Your task to perform on an android device: Go to Maps Image 0: 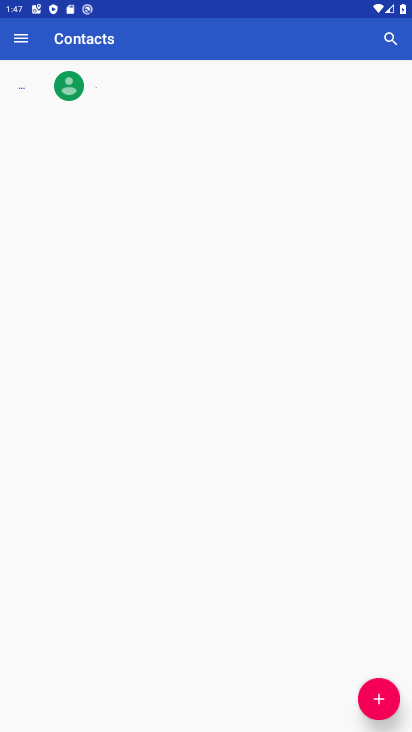
Step 0: press home button
Your task to perform on an android device: Go to Maps Image 1: 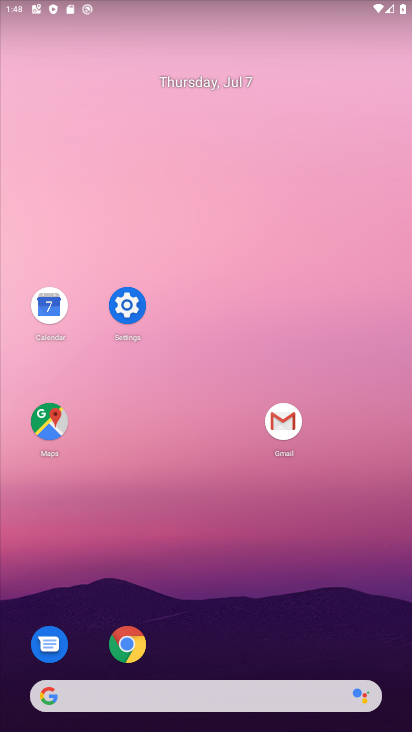
Step 1: click (51, 409)
Your task to perform on an android device: Go to Maps Image 2: 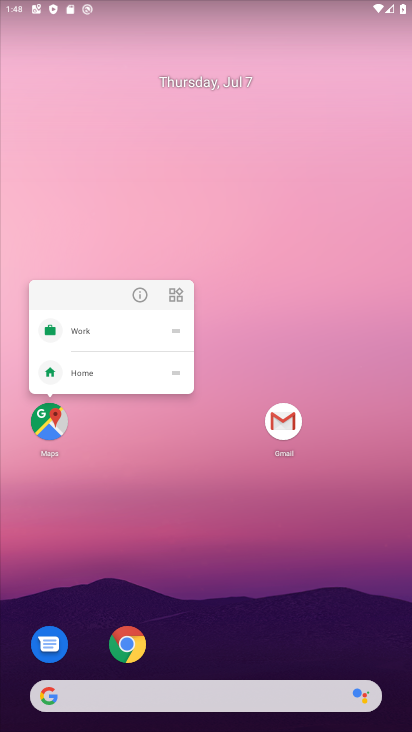
Step 2: click (49, 413)
Your task to perform on an android device: Go to Maps Image 3: 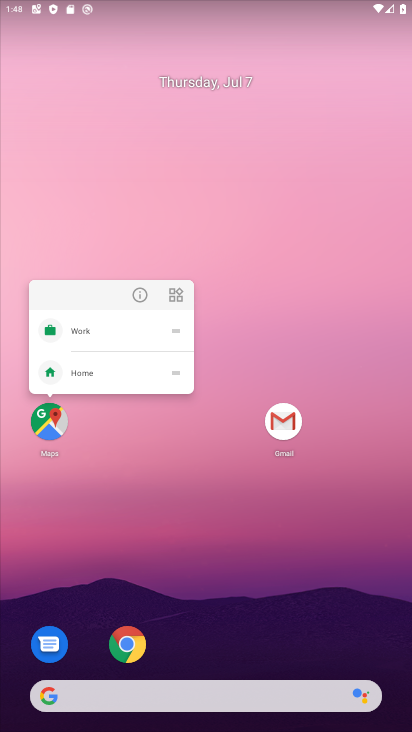
Step 3: click (49, 413)
Your task to perform on an android device: Go to Maps Image 4: 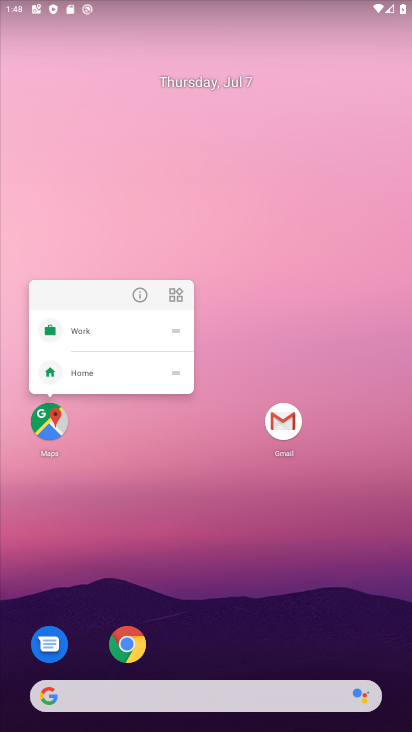
Step 4: click (50, 416)
Your task to perform on an android device: Go to Maps Image 5: 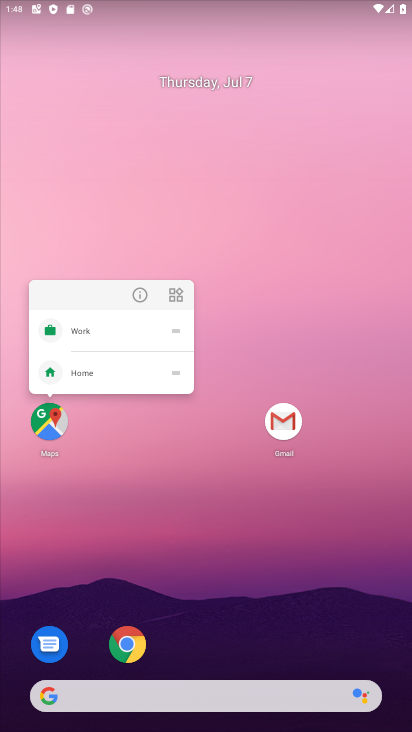
Step 5: click (48, 428)
Your task to perform on an android device: Go to Maps Image 6: 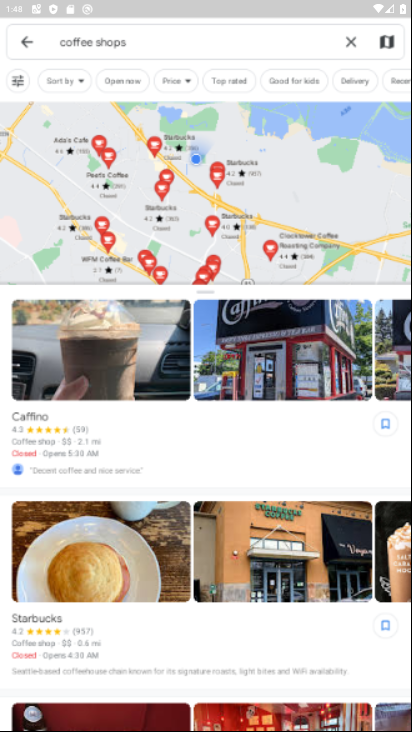
Step 6: click (48, 426)
Your task to perform on an android device: Go to Maps Image 7: 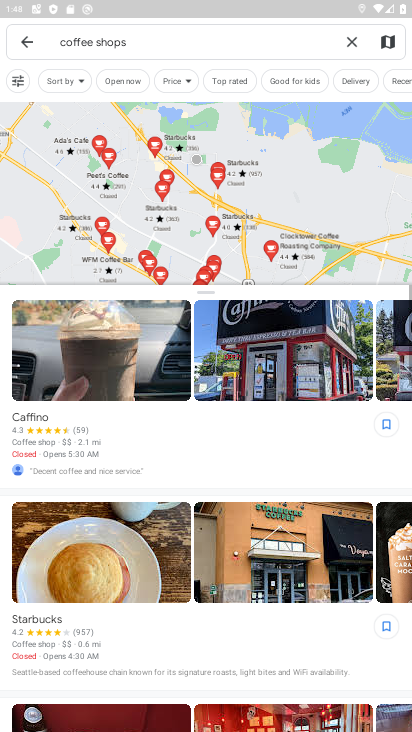
Step 7: click (23, 31)
Your task to perform on an android device: Go to Maps Image 8: 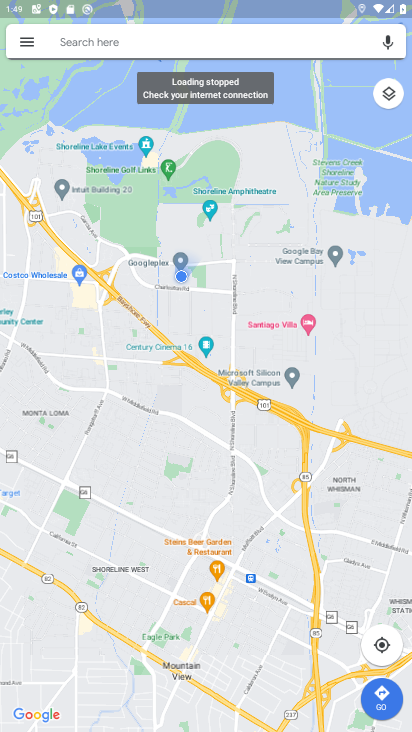
Step 8: task complete